Your task to perform on an android device: Open Google Chrome Image 0: 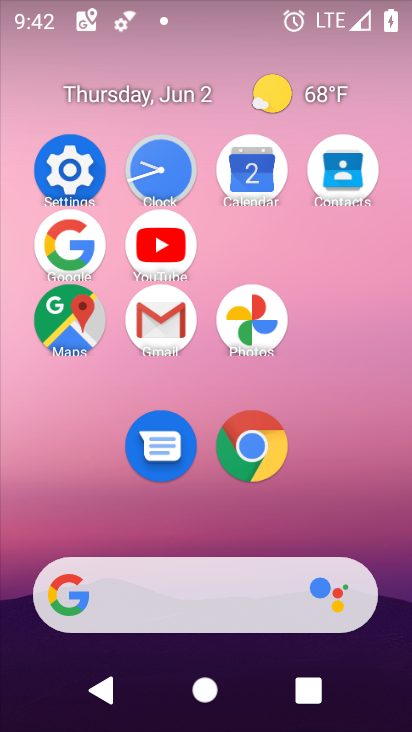
Step 0: click (240, 479)
Your task to perform on an android device: Open Google Chrome Image 1: 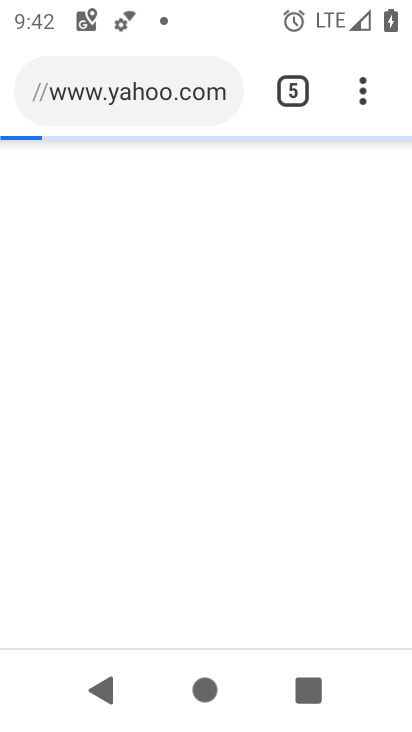
Step 1: task complete